Your task to perform on an android device: turn pop-ups on in chrome Image 0: 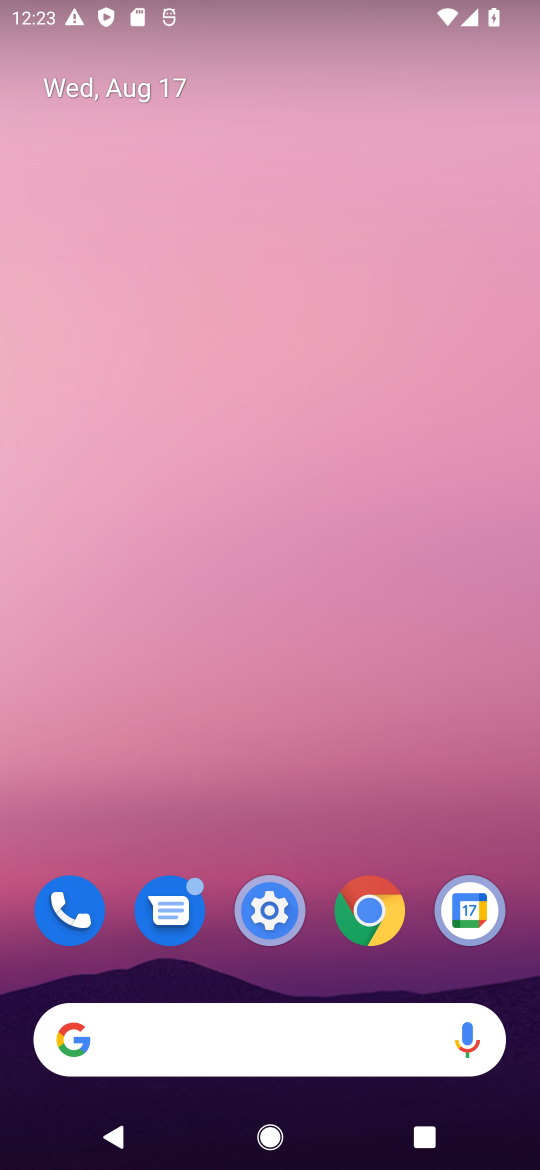
Step 0: click (377, 925)
Your task to perform on an android device: turn pop-ups on in chrome Image 1: 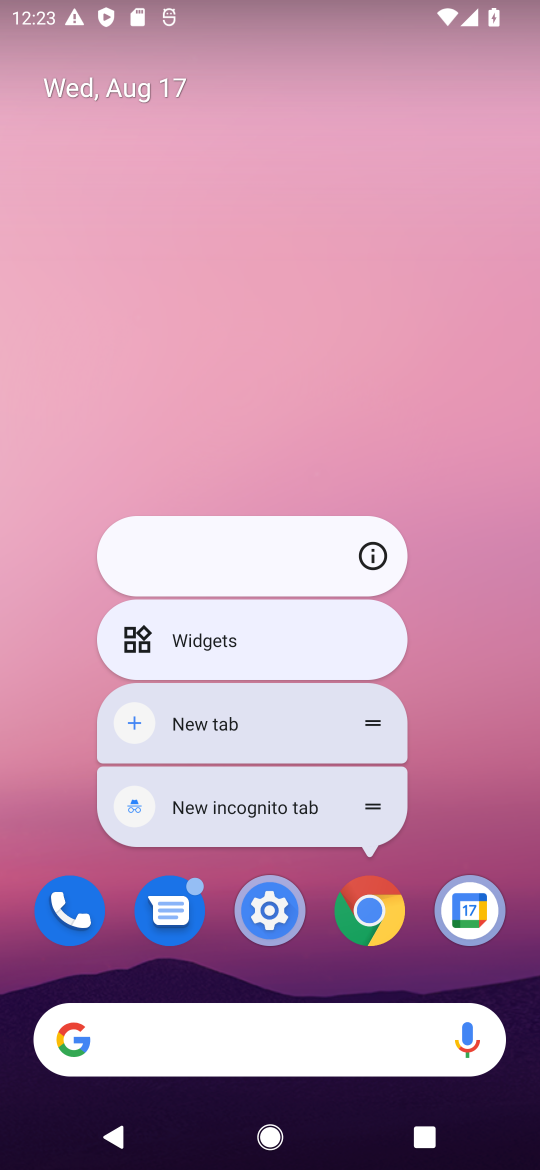
Step 1: click (363, 906)
Your task to perform on an android device: turn pop-ups on in chrome Image 2: 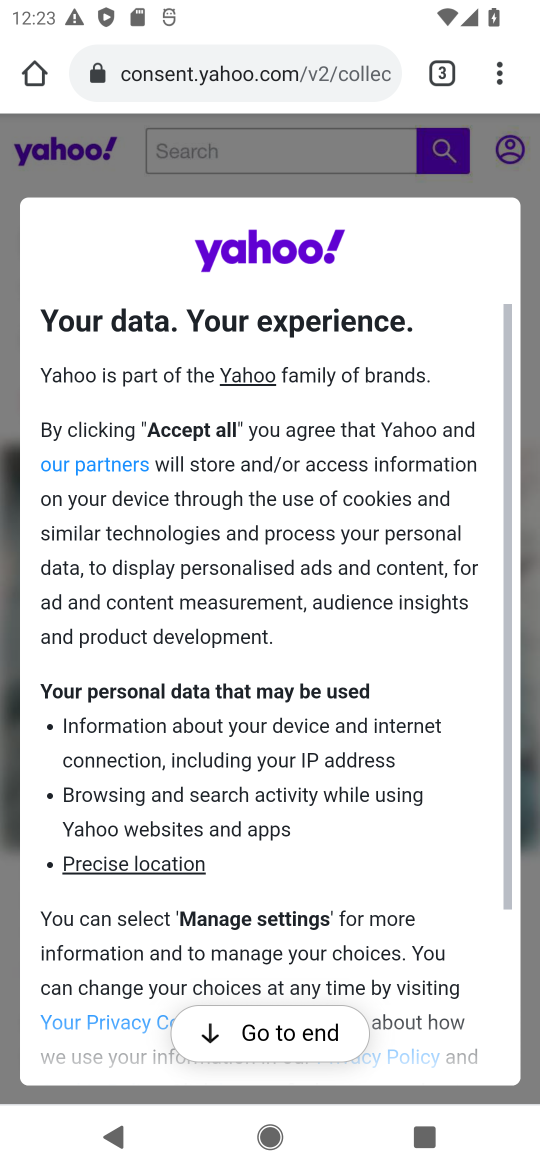
Step 2: drag from (498, 71) to (277, 931)
Your task to perform on an android device: turn pop-ups on in chrome Image 3: 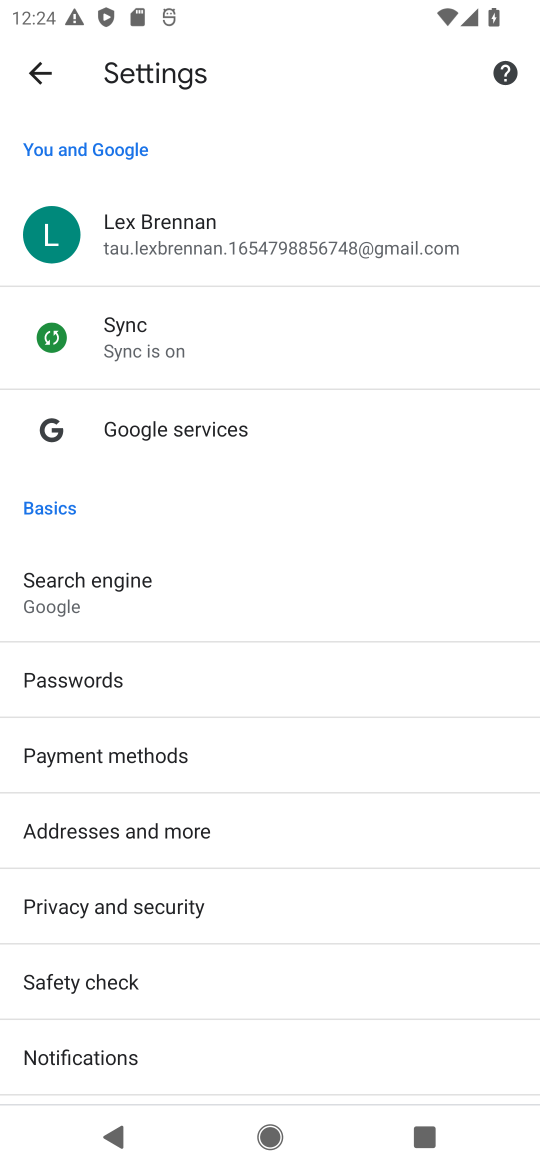
Step 3: drag from (133, 1060) to (328, 163)
Your task to perform on an android device: turn pop-ups on in chrome Image 4: 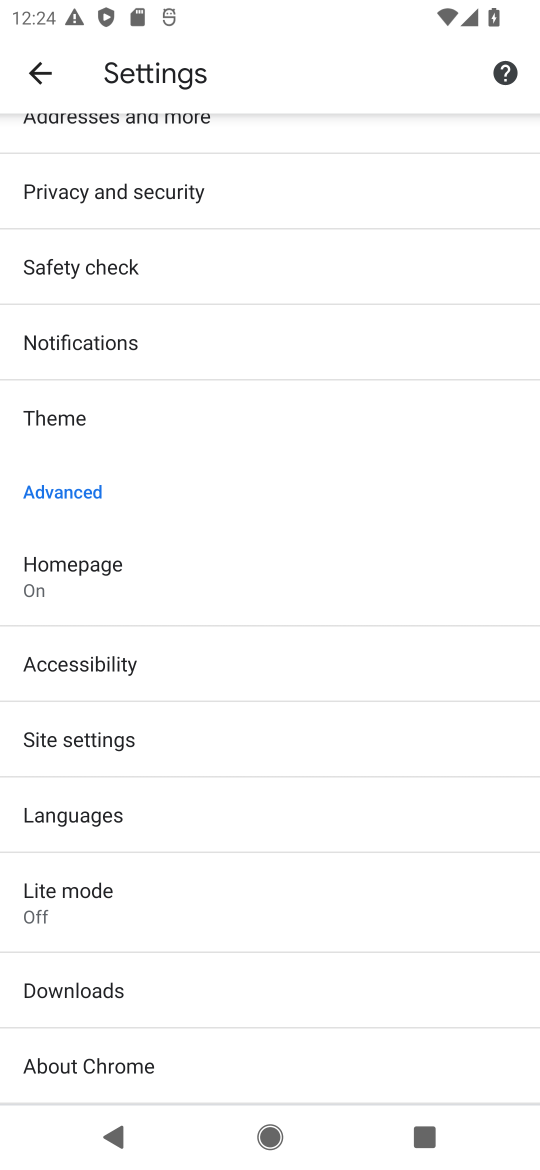
Step 4: click (145, 731)
Your task to perform on an android device: turn pop-ups on in chrome Image 5: 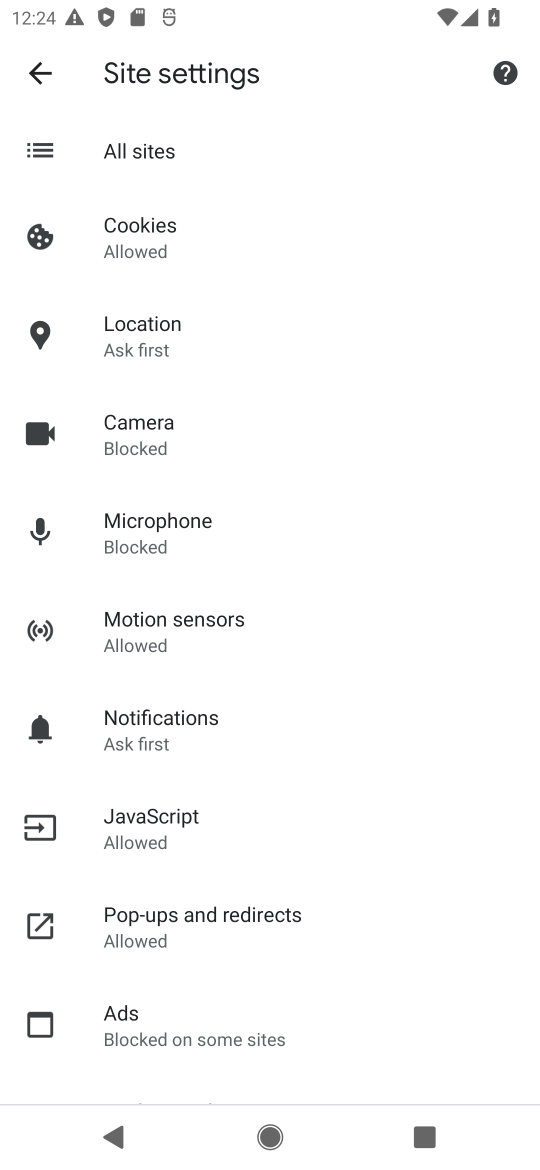
Step 5: click (124, 937)
Your task to perform on an android device: turn pop-ups on in chrome Image 6: 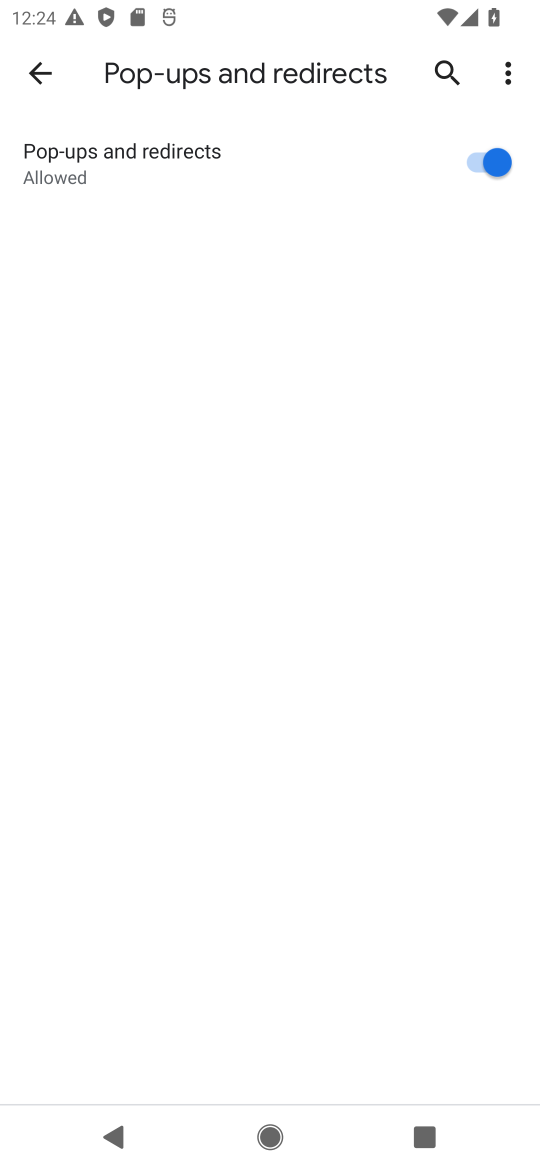
Step 6: task complete